Your task to perform on an android device: turn on data saver in the chrome app Image 0: 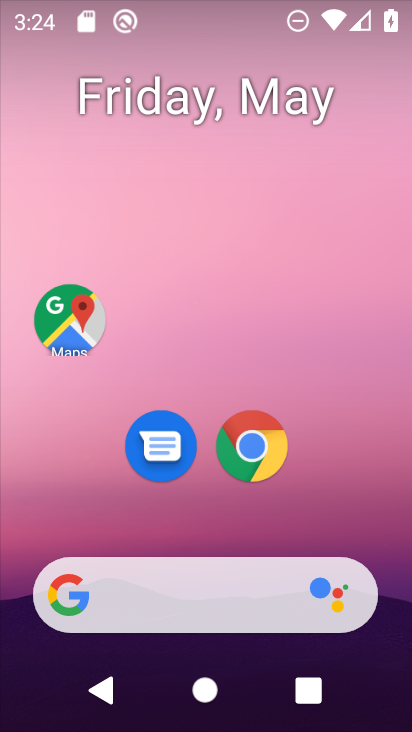
Step 0: click (249, 463)
Your task to perform on an android device: turn on data saver in the chrome app Image 1: 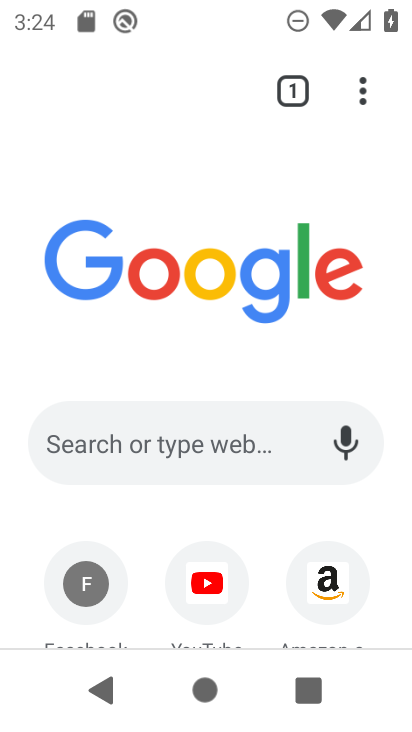
Step 1: drag from (358, 91) to (264, 472)
Your task to perform on an android device: turn on data saver in the chrome app Image 2: 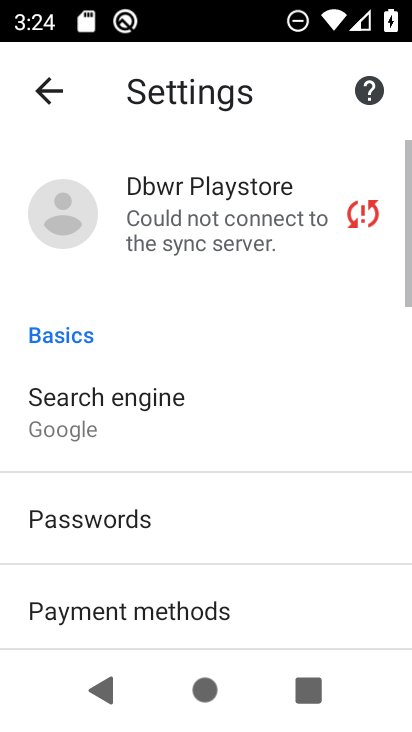
Step 2: drag from (271, 583) to (297, 284)
Your task to perform on an android device: turn on data saver in the chrome app Image 3: 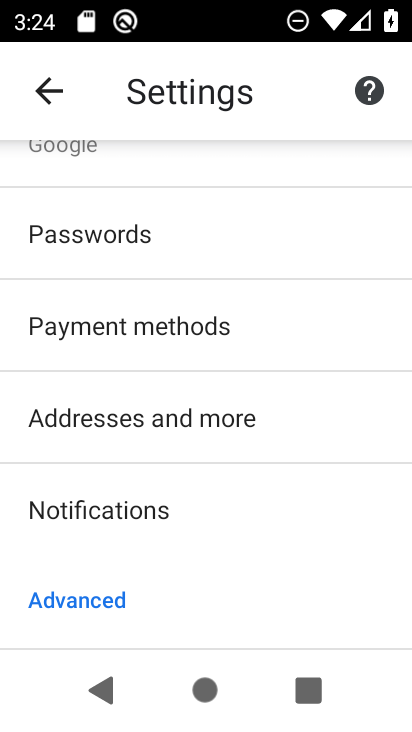
Step 3: drag from (284, 587) to (275, 256)
Your task to perform on an android device: turn on data saver in the chrome app Image 4: 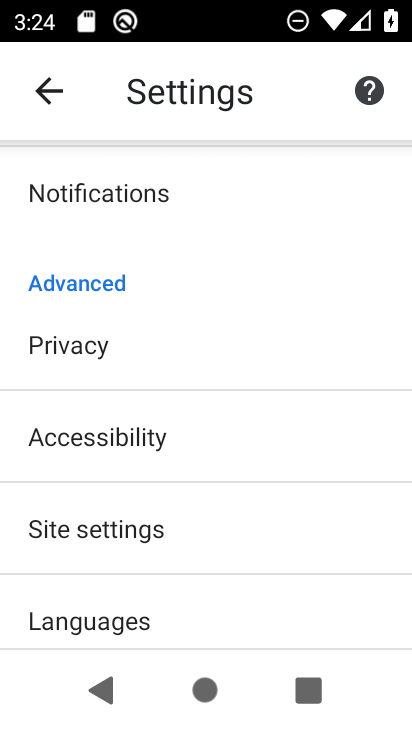
Step 4: drag from (264, 567) to (291, 299)
Your task to perform on an android device: turn on data saver in the chrome app Image 5: 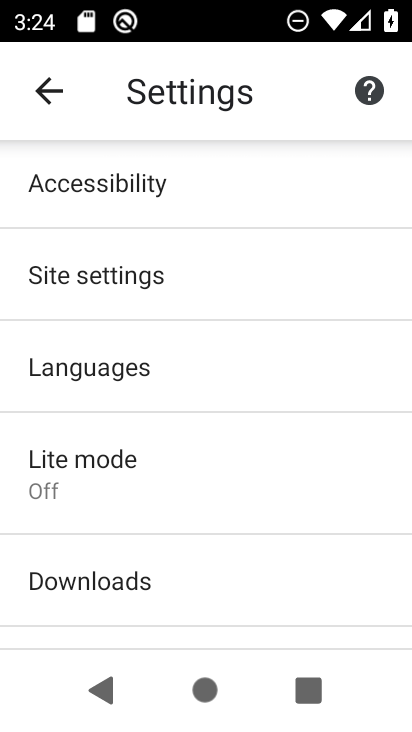
Step 5: click (121, 453)
Your task to perform on an android device: turn on data saver in the chrome app Image 6: 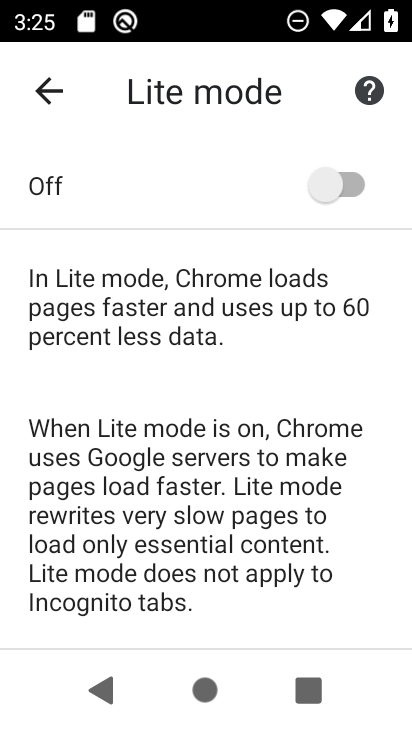
Step 6: click (353, 182)
Your task to perform on an android device: turn on data saver in the chrome app Image 7: 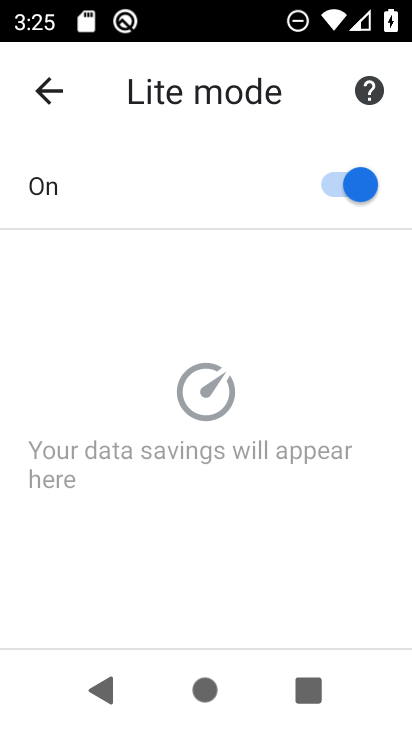
Step 7: task complete